Your task to perform on an android device: Go to Google maps Image 0: 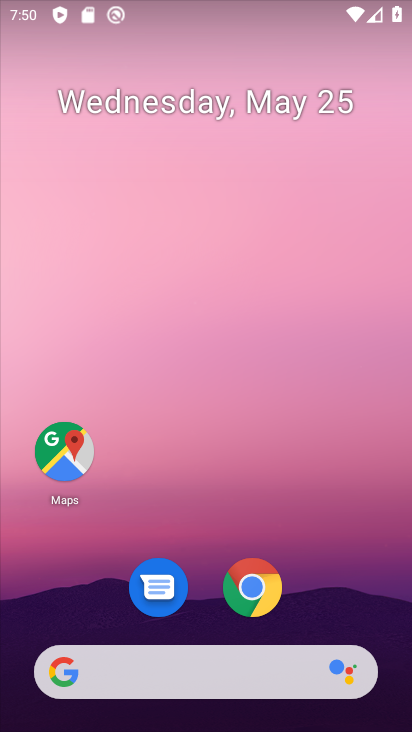
Step 0: click (64, 456)
Your task to perform on an android device: Go to Google maps Image 1: 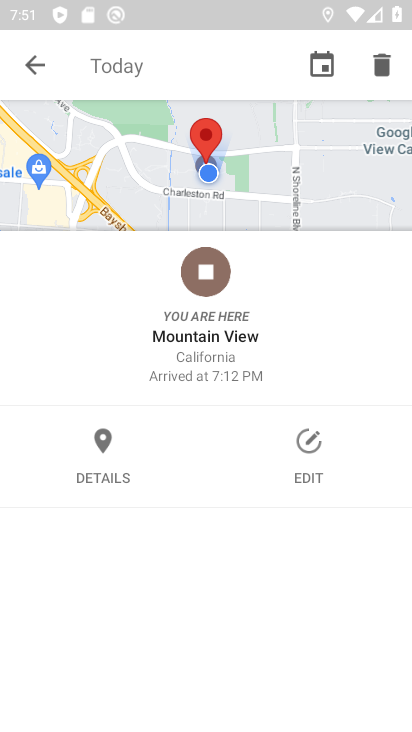
Step 1: click (38, 61)
Your task to perform on an android device: Go to Google maps Image 2: 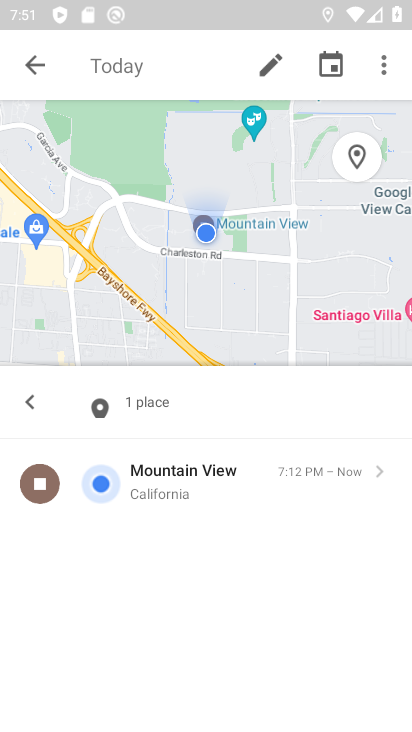
Step 2: click (34, 63)
Your task to perform on an android device: Go to Google maps Image 3: 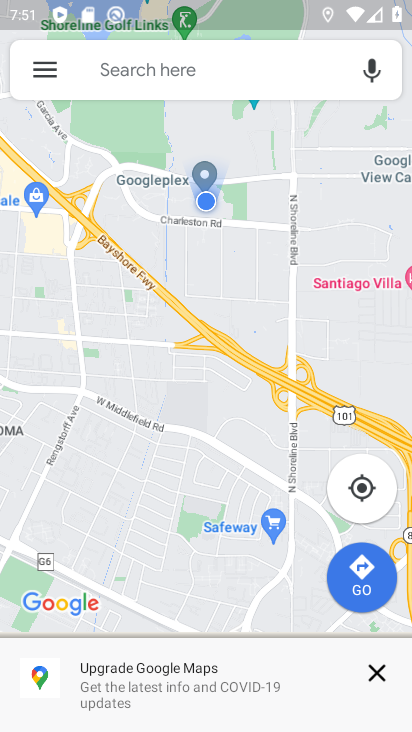
Step 3: task complete